Your task to perform on an android device: turn pop-ups on in chrome Image 0: 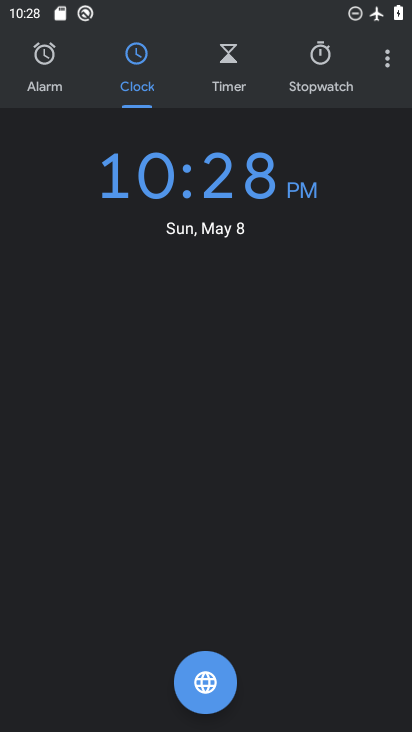
Step 0: press home button
Your task to perform on an android device: turn pop-ups on in chrome Image 1: 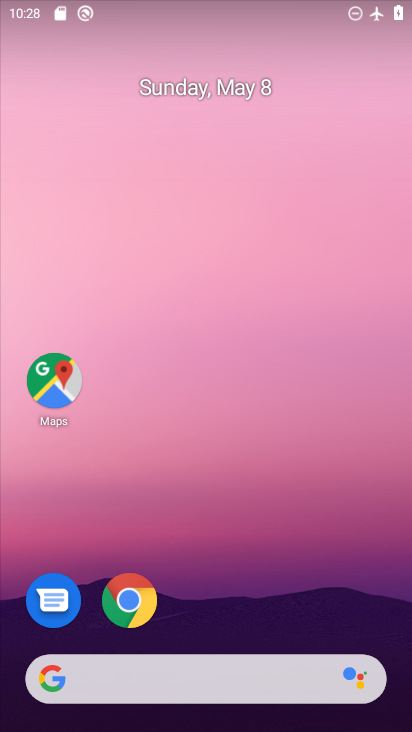
Step 1: click (119, 611)
Your task to perform on an android device: turn pop-ups on in chrome Image 2: 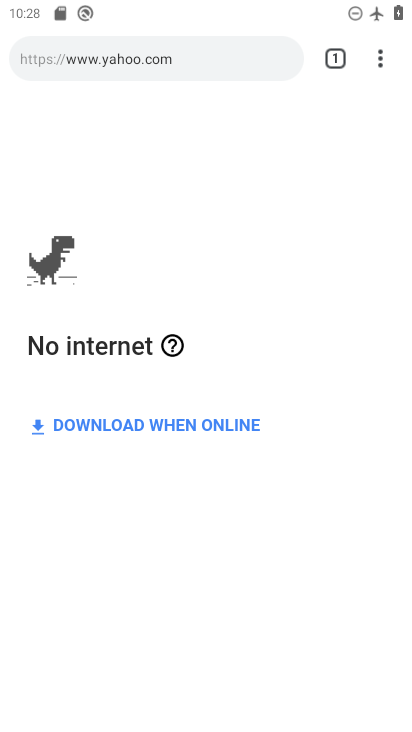
Step 2: click (382, 66)
Your task to perform on an android device: turn pop-ups on in chrome Image 3: 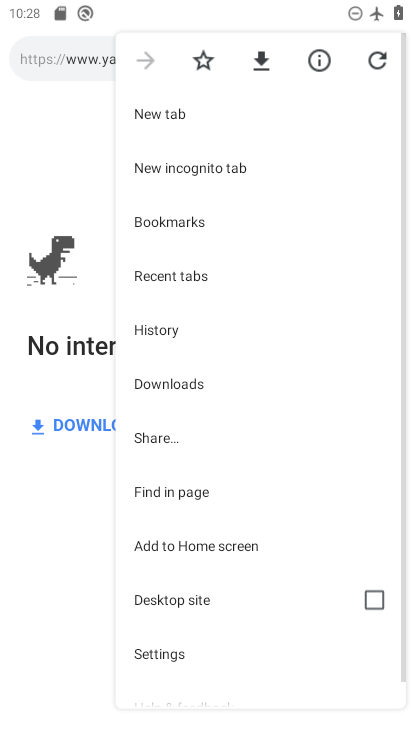
Step 3: click (186, 652)
Your task to perform on an android device: turn pop-ups on in chrome Image 4: 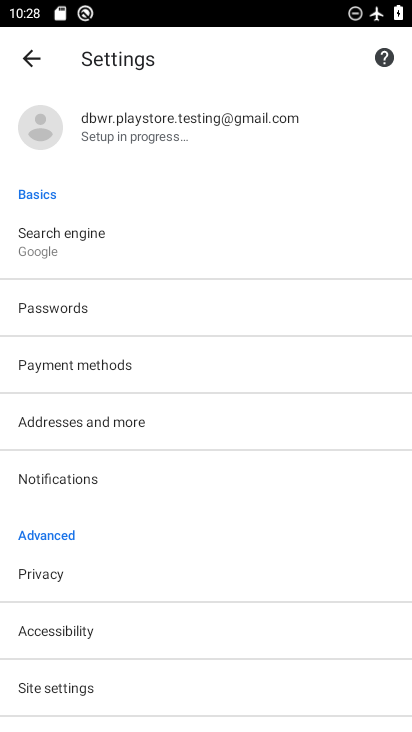
Step 4: drag from (138, 611) to (140, 321)
Your task to perform on an android device: turn pop-ups on in chrome Image 5: 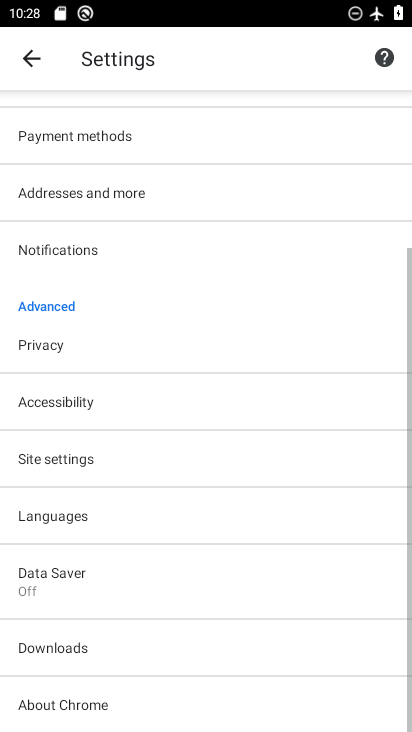
Step 5: click (64, 457)
Your task to perform on an android device: turn pop-ups on in chrome Image 6: 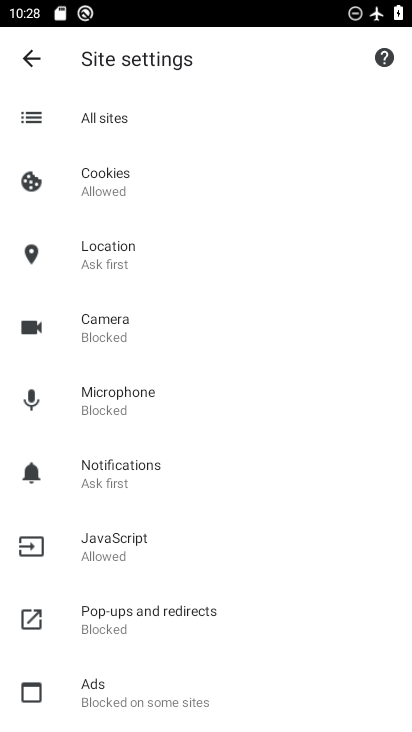
Step 6: click (132, 608)
Your task to perform on an android device: turn pop-ups on in chrome Image 7: 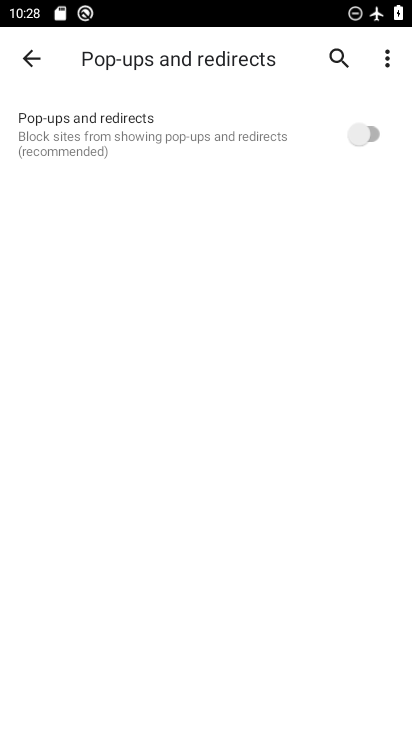
Step 7: click (374, 135)
Your task to perform on an android device: turn pop-ups on in chrome Image 8: 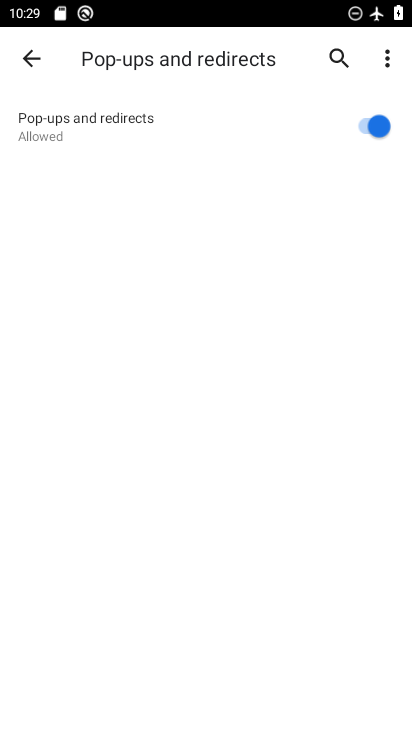
Step 8: task complete